Your task to perform on an android device: change notification settings in the gmail app Image 0: 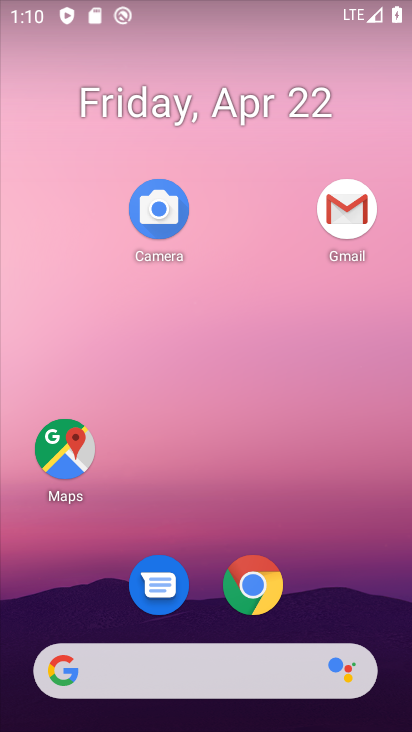
Step 0: click (354, 210)
Your task to perform on an android device: change notification settings in the gmail app Image 1: 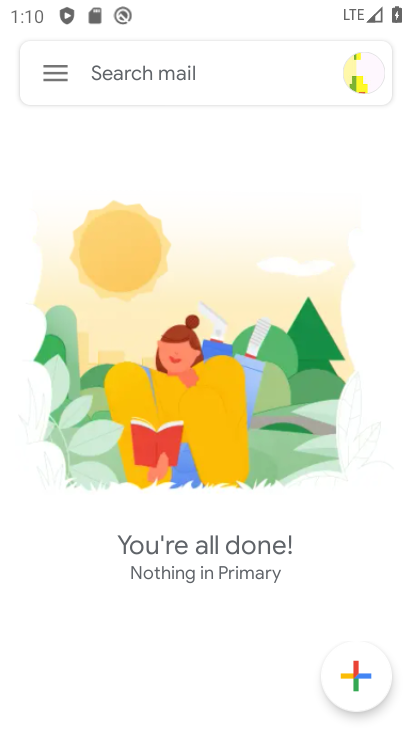
Step 1: click (55, 75)
Your task to perform on an android device: change notification settings in the gmail app Image 2: 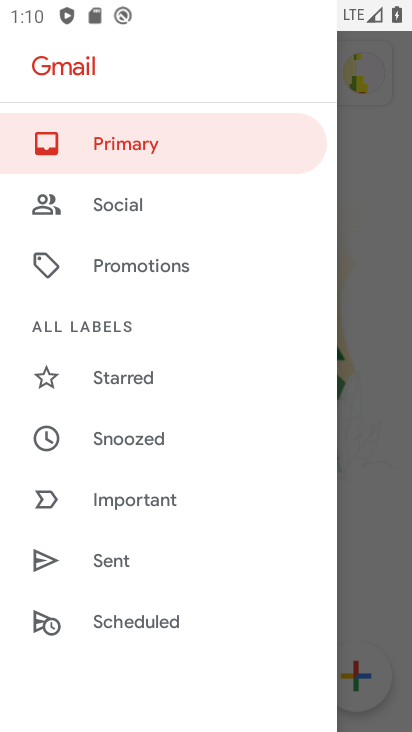
Step 2: drag from (169, 568) to (204, 148)
Your task to perform on an android device: change notification settings in the gmail app Image 3: 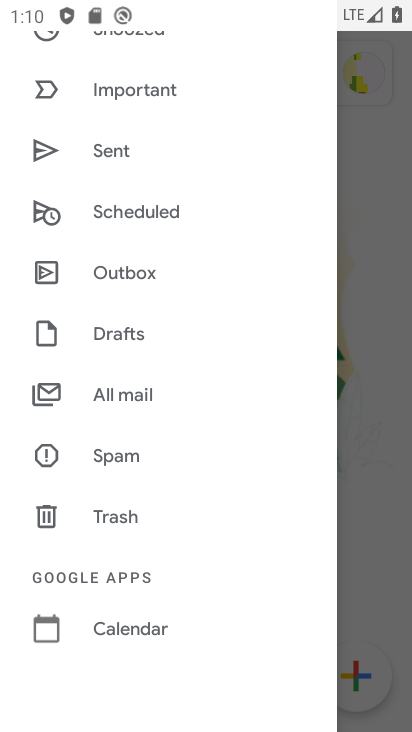
Step 3: drag from (222, 489) to (243, 171)
Your task to perform on an android device: change notification settings in the gmail app Image 4: 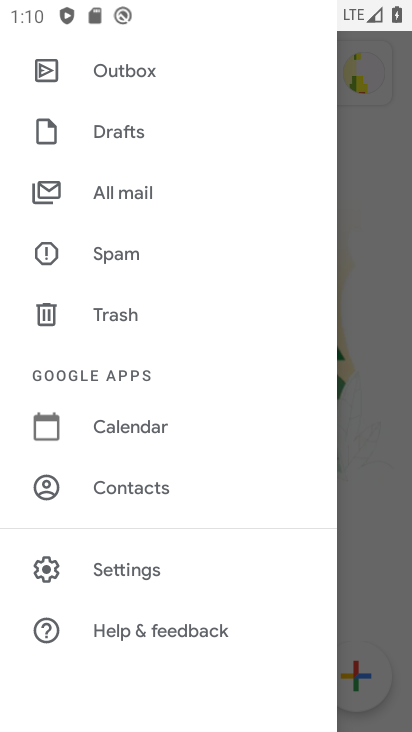
Step 4: click (130, 564)
Your task to perform on an android device: change notification settings in the gmail app Image 5: 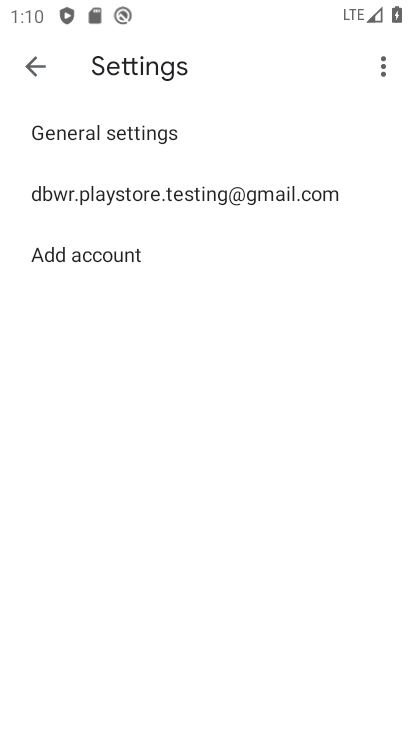
Step 5: click (151, 121)
Your task to perform on an android device: change notification settings in the gmail app Image 6: 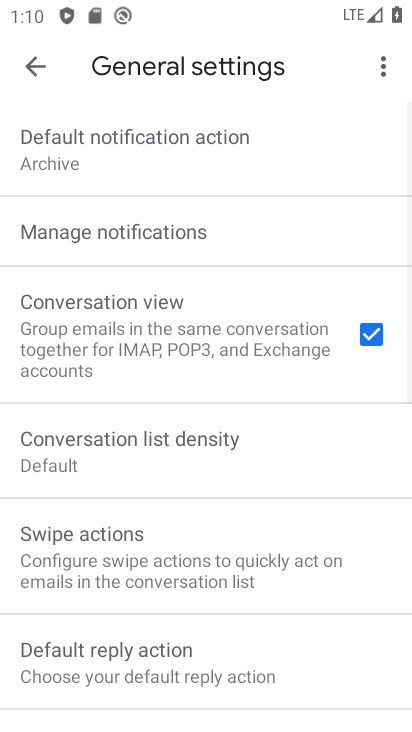
Step 6: click (219, 227)
Your task to perform on an android device: change notification settings in the gmail app Image 7: 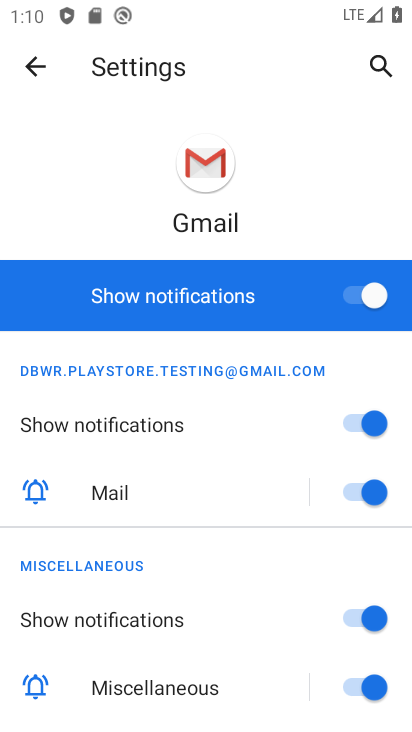
Step 7: click (352, 291)
Your task to perform on an android device: change notification settings in the gmail app Image 8: 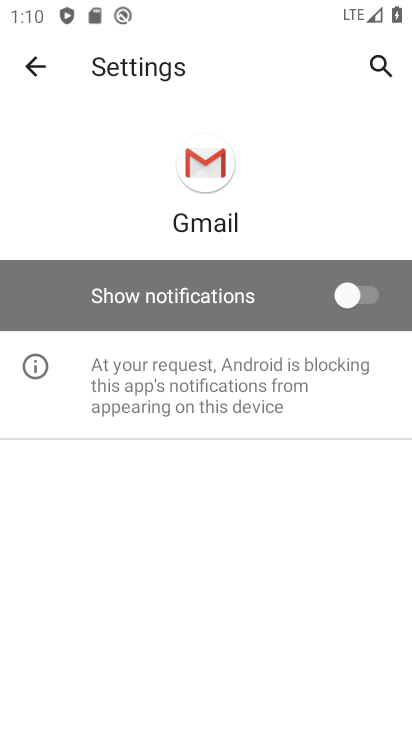
Step 8: task complete